Your task to perform on an android device: Clear all items from cart on target. Image 0: 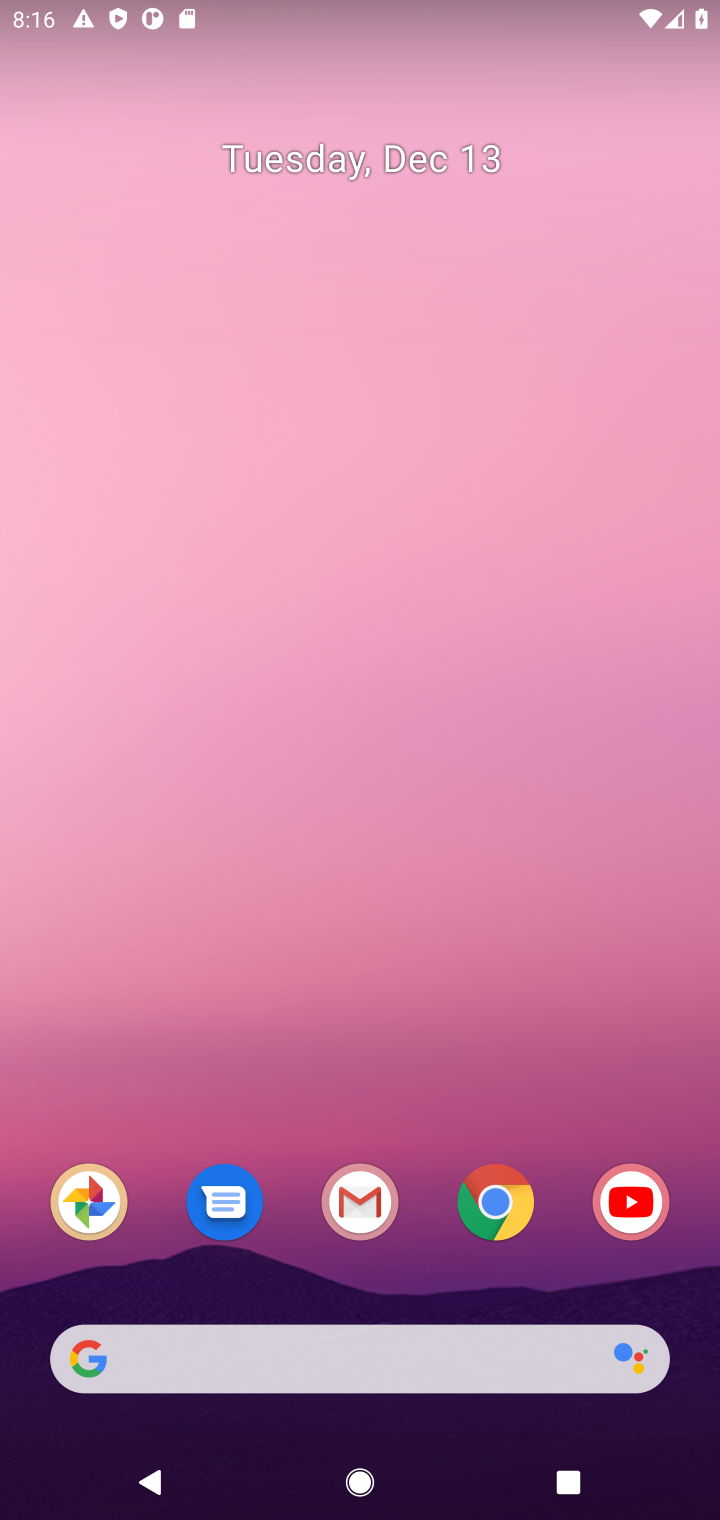
Step 0: click (515, 1192)
Your task to perform on an android device: Clear all items from cart on target. Image 1: 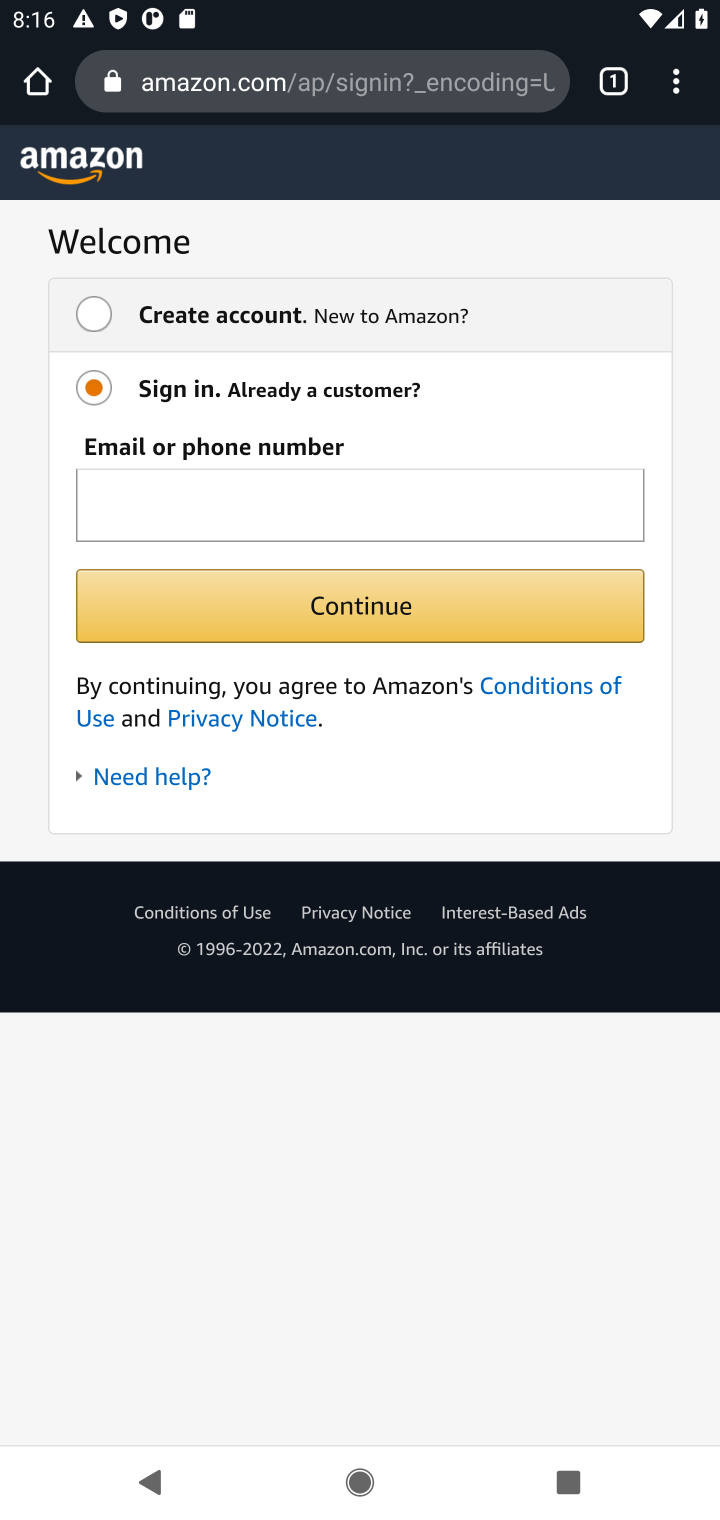
Step 1: click (477, 96)
Your task to perform on an android device: Clear all items from cart on target. Image 2: 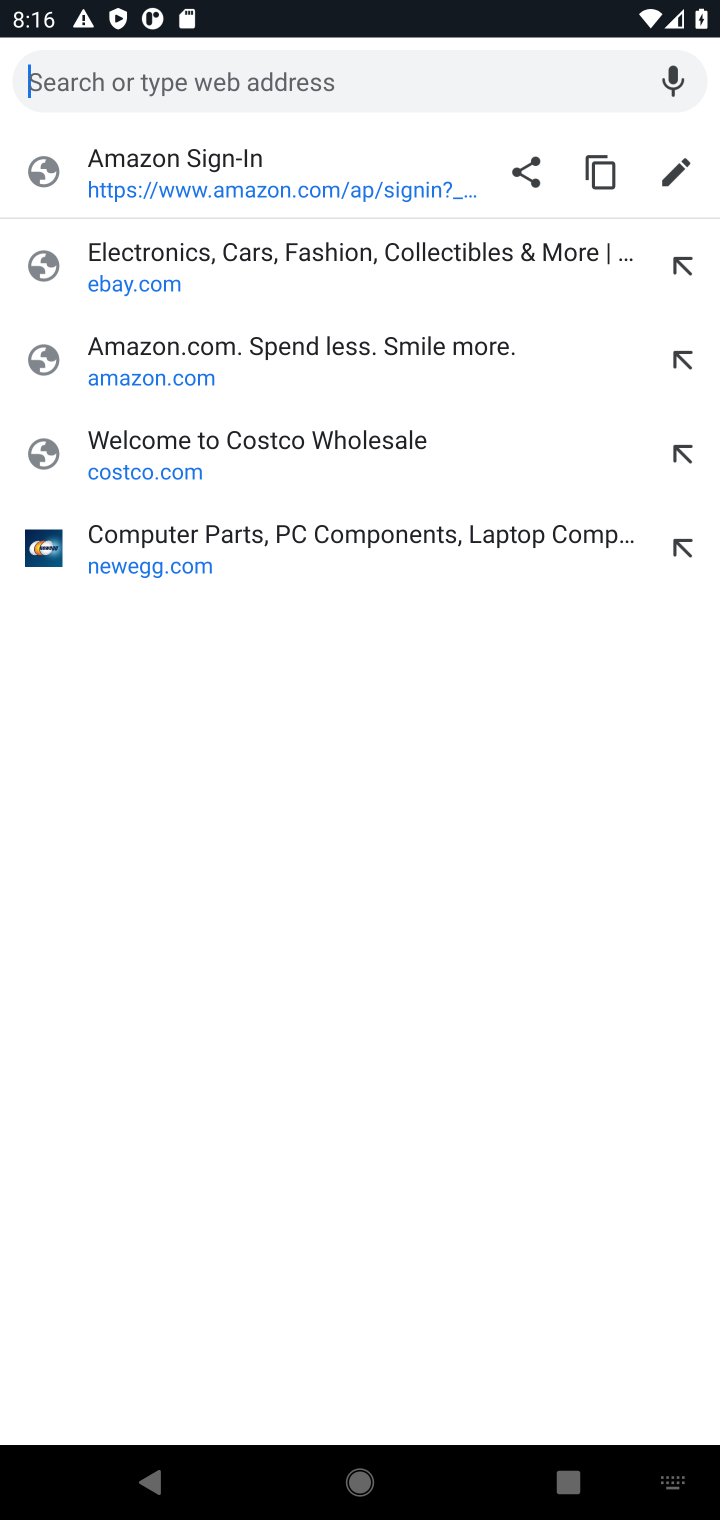
Step 2: type "target.com"
Your task to perform on an android device: Clear all items from cart on target. Image 3: 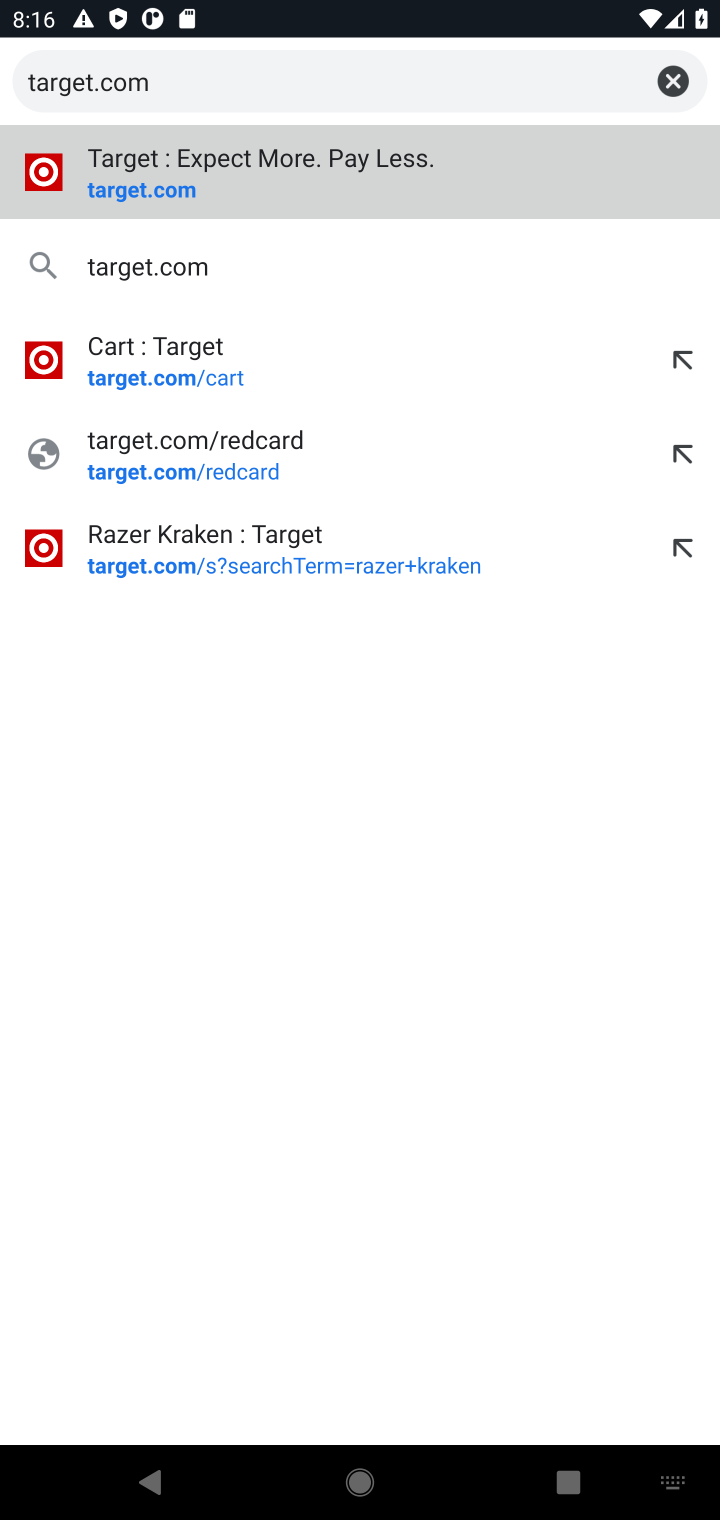
Step 3: click (120, 184)
Your task to perform on an android device: Clear all items from cart on target. Image 4: 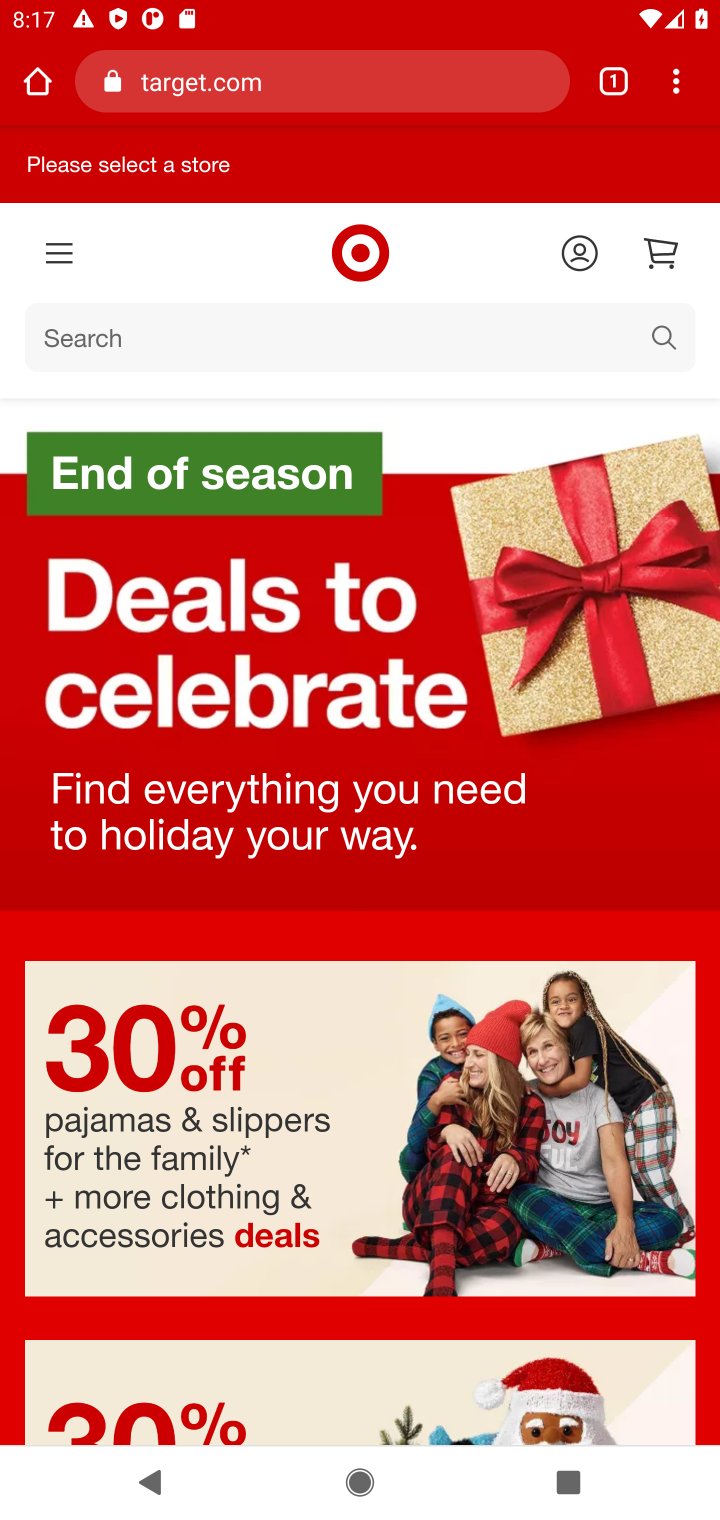
Step 4: click (665, 261)
Your task to perform on an android device: Clear all items from cart on target. Image 5: 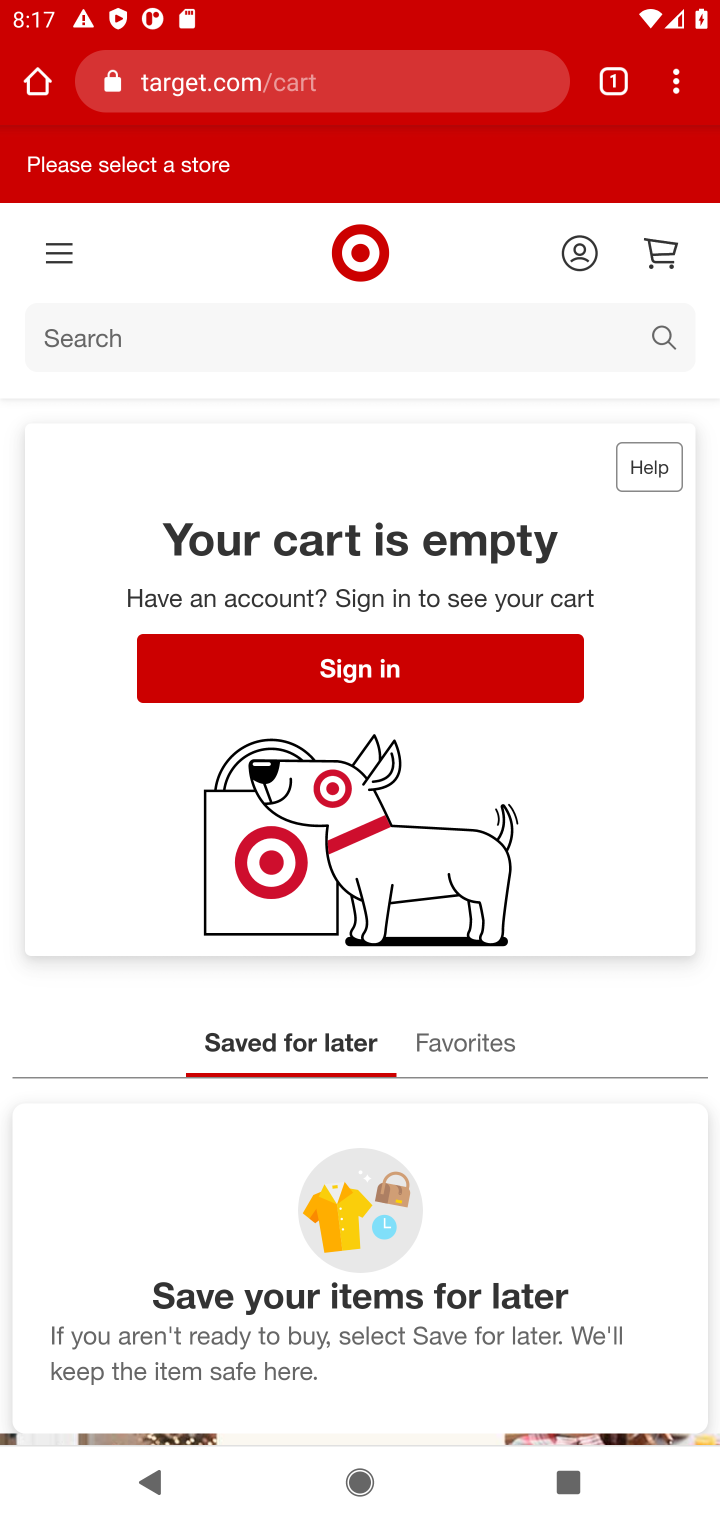
Step 5: task complete